Your task to perform on an android device: install app "Microsoft Outlook" Image 0: 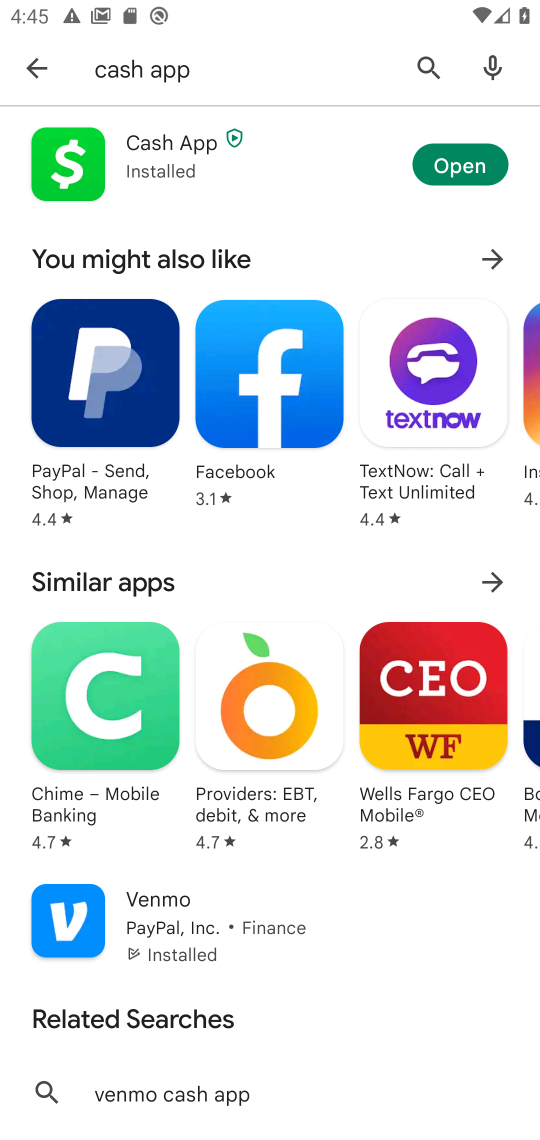
Step 0: click (424, 63)
Your task to perform on an android device: install app "Microsoft Outlook" Image 1: 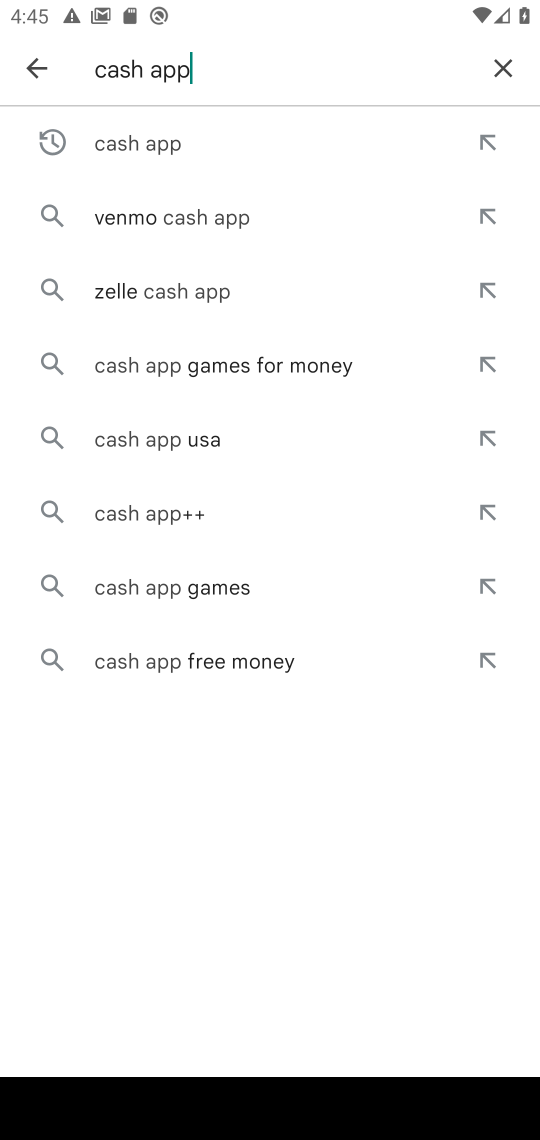
Step 1: click (501, 70)
Your task to perform on an android device: install app "Microsoft Outlook" Image 2: 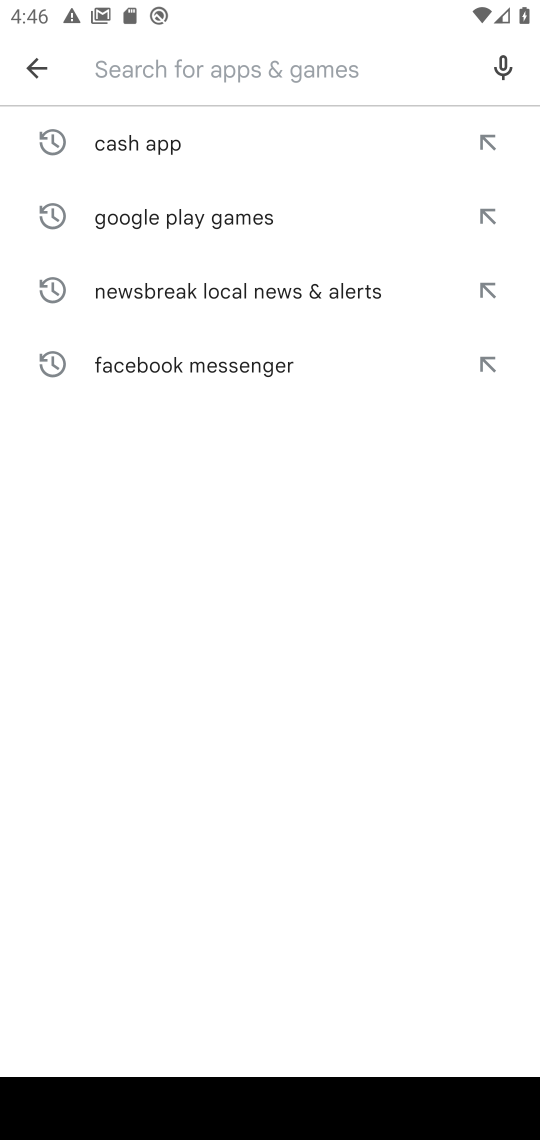
Step 2: type "Microsoft Outlook"
Your task to perform on an android device: install app "Microsoft Outlook" Image 3: 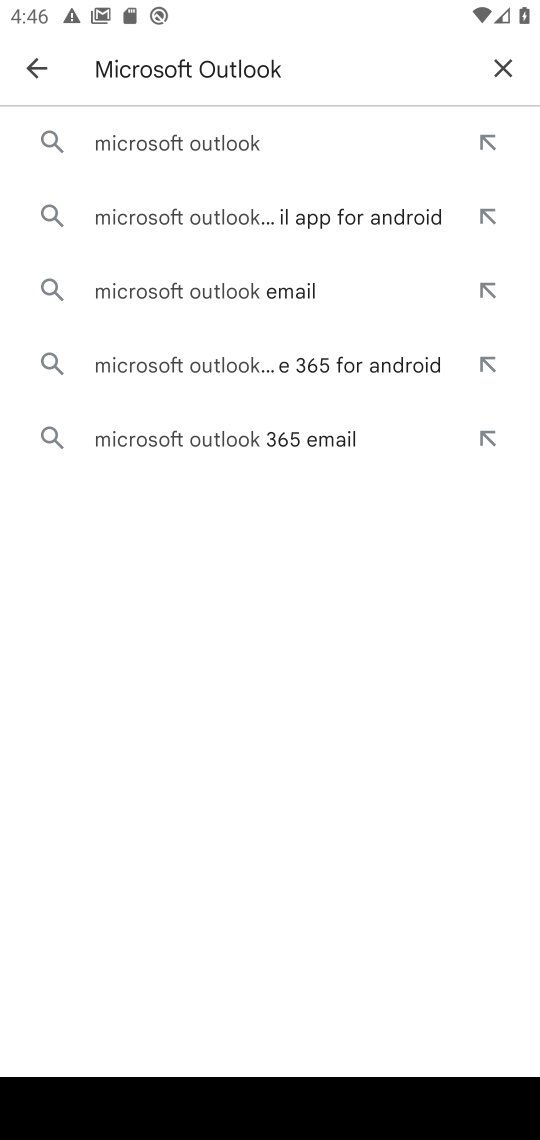
Step 3: click (164, 151)
Your task to perform on an android device: install app "Microsoft Outlook" Image 4: 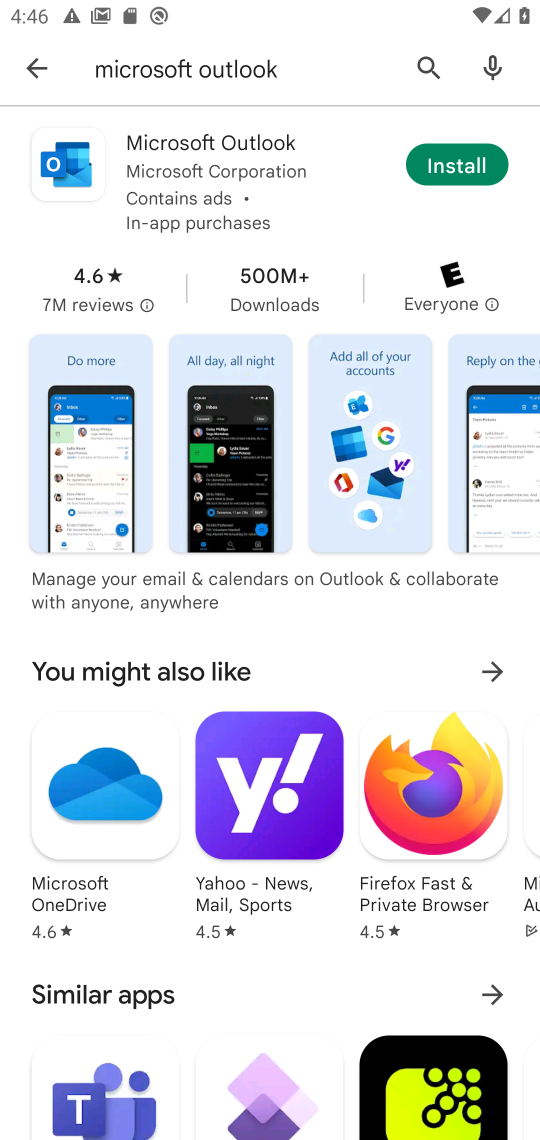
Step 4: click (427, 170)
Your task to perform on an android device: install app "Microsoft Outlook" Image 5: 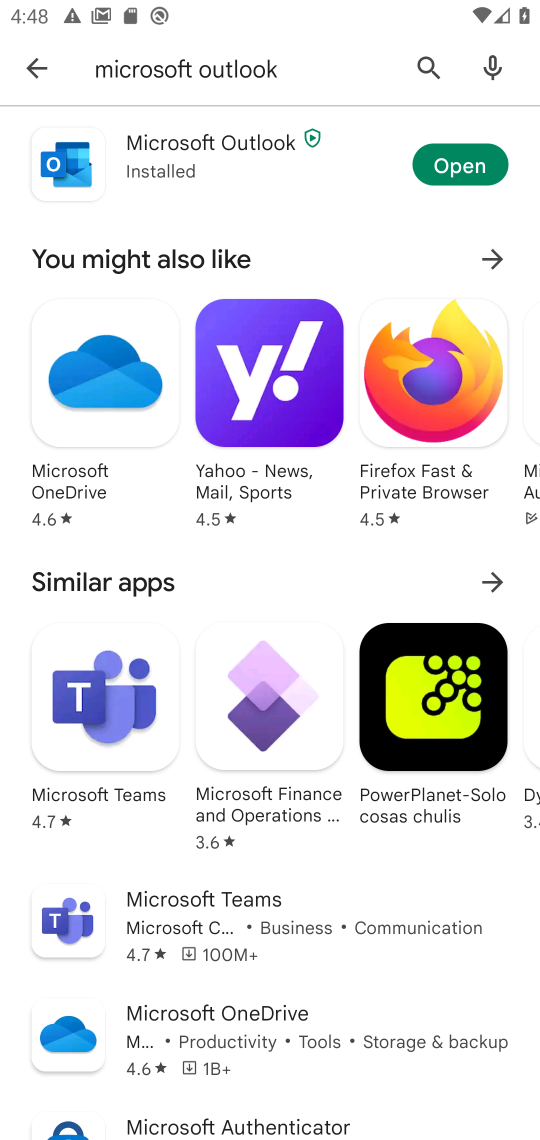
Step 5: click (459, 171)
Your task to perform on an android device: install app "Microsoft Outlook" Image 6: 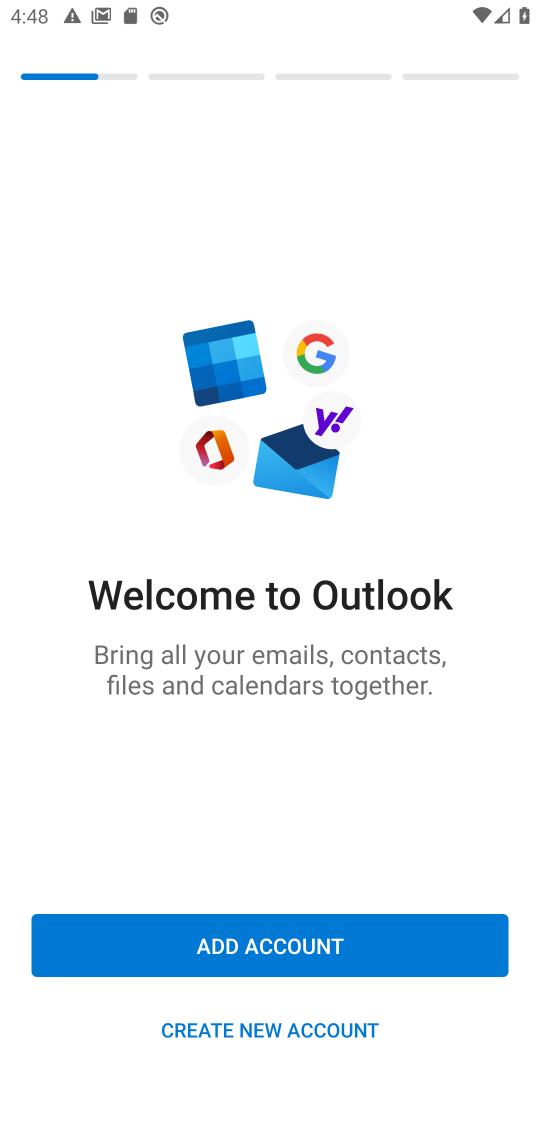
Step 6: task complete